Your task to perform on an android device: find snoozed emails in the gmail app Image 0: 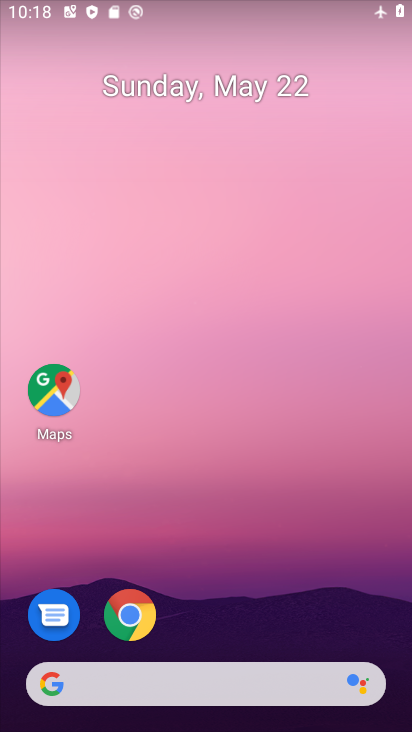
Step 0: drag from (246, 606) to (213, 156)
Your task to perform on an android device: find snoozed emails in the gmail app Image 1: 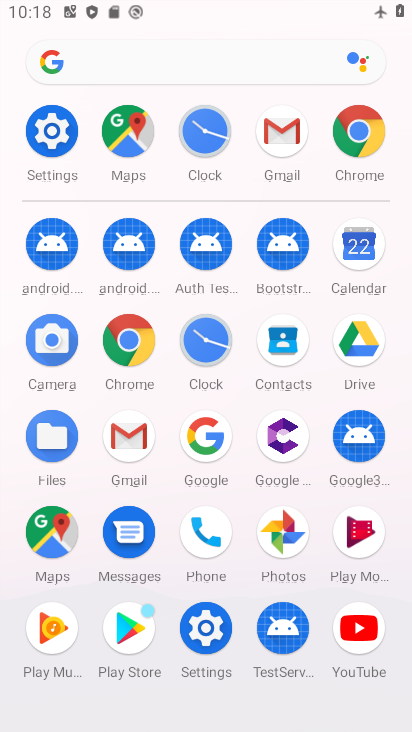
Step 1: click (291, 137)
Your task to perform on an android device: find snoozed emails in the gmail app Image 2: 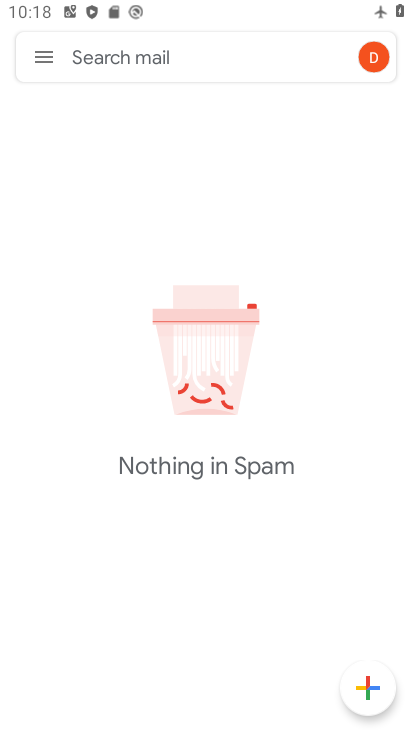
Step 2: click (43, 56)
Your task to perform on an android device: find snoozed emails in the gmail app Image 3: 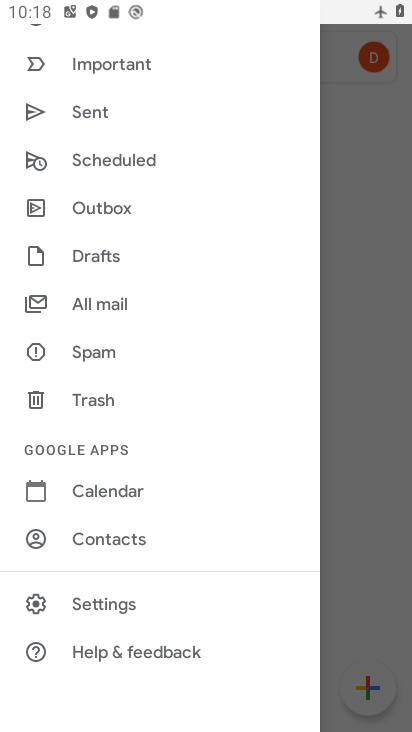
Step 3: drag from (91, 192) to (118, 586)
Your task to perform on an android device: find snoozed emails in the gmail app Image 4: 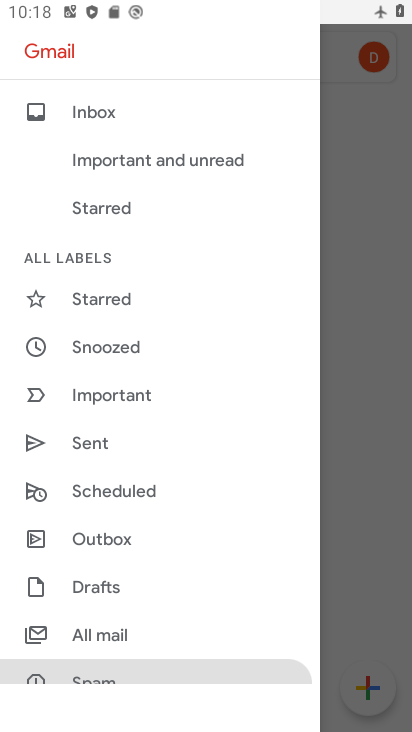
Step 4: click (121, 343)
Your task to perform on an android device: find snoozed emails in the gmail app Image 5: 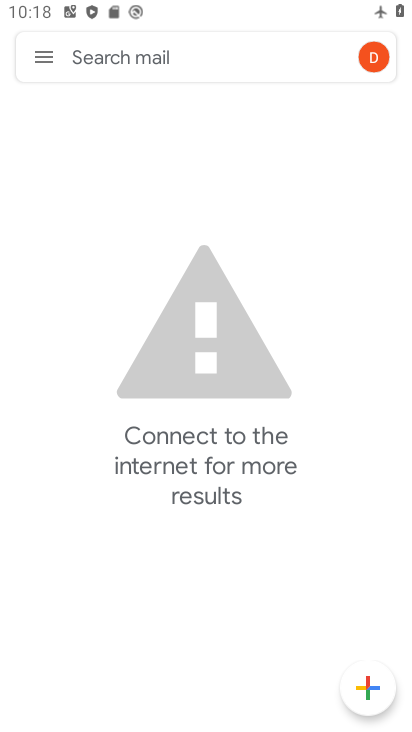
Step 5: task complete